Your task to perform on an android device: Open sound settings Image 0: 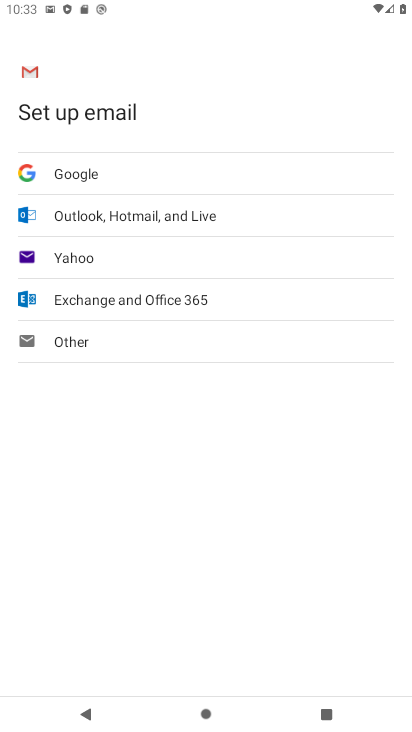
Step 0: press back button
Your task to perform on an android device: Open sound settings Image 1: 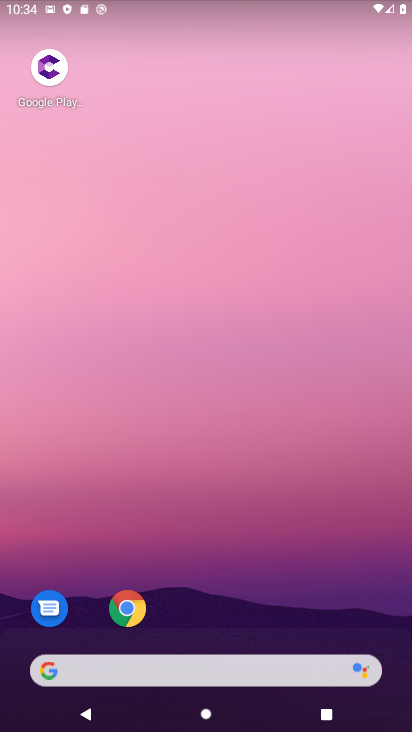
Step 1: drag from (29, 463) to (352, 554)
Your task to perform on an android device: Open sound settings Image 2: 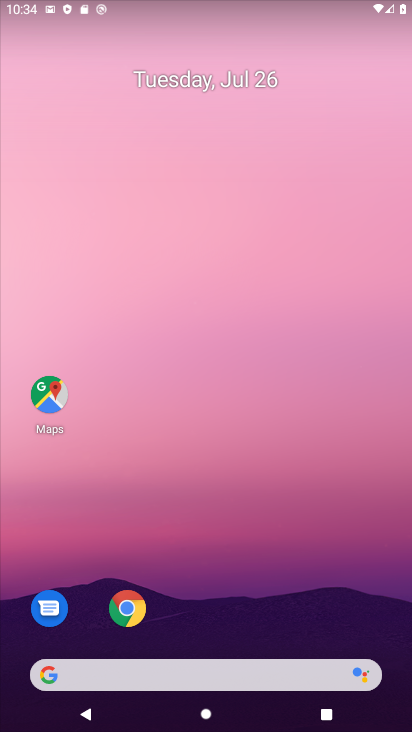
Step 2: drag from (195, 613) to (214, 238)
Your task to perform on an android device: Open sound settings Image 3: 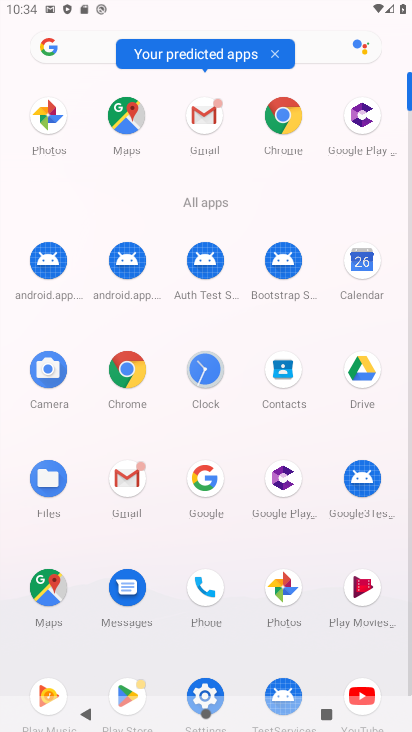
Step 3: drag from (204, 685) to (98, 161)
Your task to perform on an android device: Open sound settings Image 4: 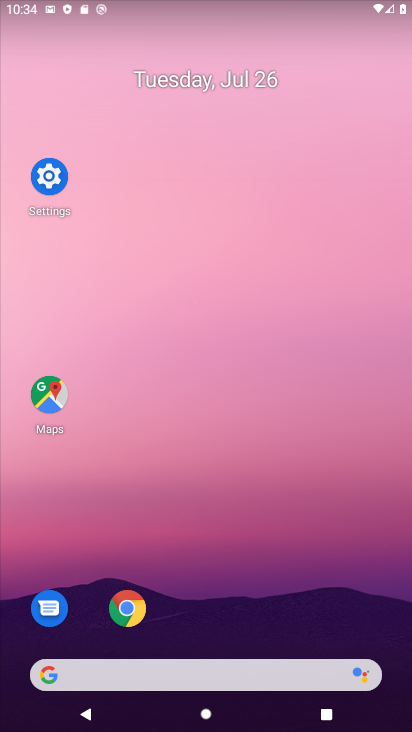
Step 4: click (40, 174)
Your task to perform on an android device: Open sound settings Image 5: 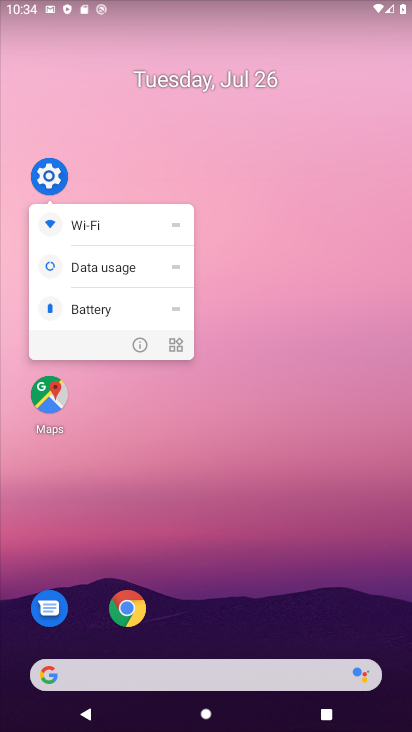
Step 5: click (42, 172)
Your task to perform on an android device: Open sound settings Image 6: 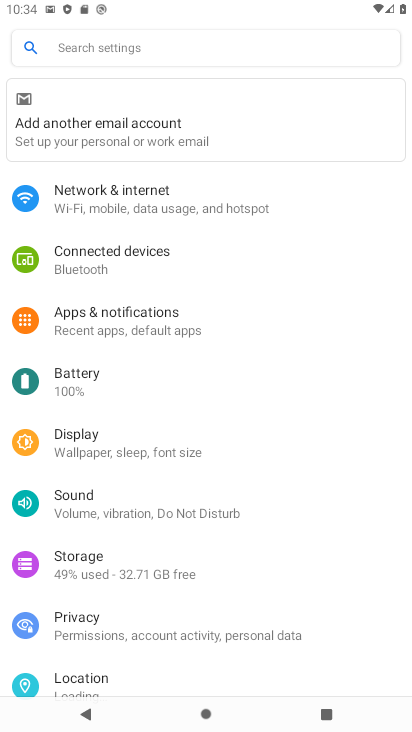
Step 6: click (110, 509)
Your task to perform on an android device: Open sound settings Image 7: 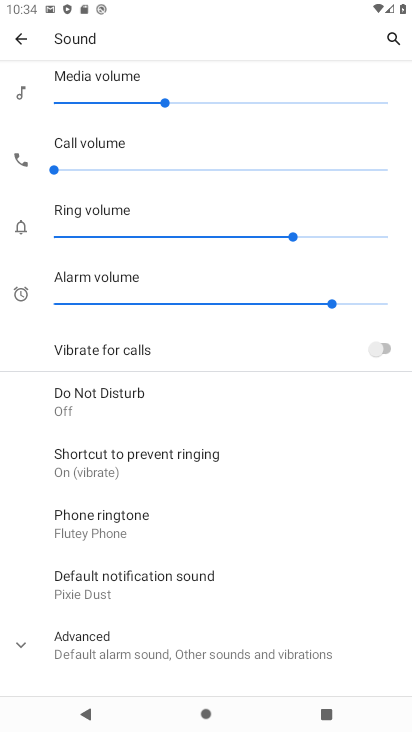
Step 7: task complete